Your task to perform on an android device: toggle improve location accuracy Image 0: 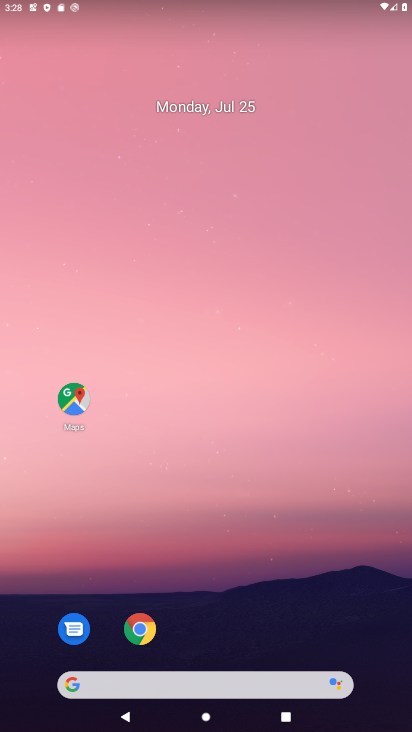
Step 0: drag from (213, 697) to (280, 103)
Your task to perform on an android device: toggle improve location accuracy Image 1: 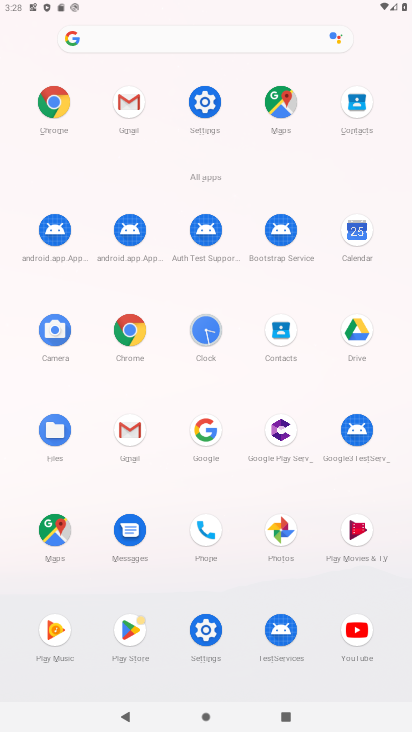
Step 1: click (214, 107)
Your task to perform on an android device: toggle improve location accuracy Image 2: 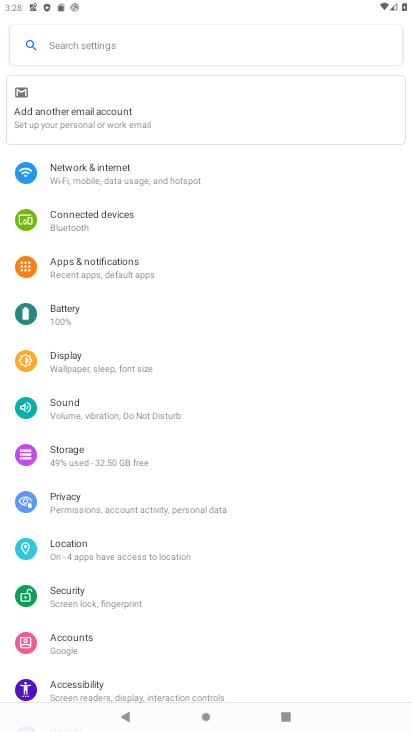
Step 2: click (106, 549)
Your task to perform on an android device: toggle improve location accuracy Image 3: 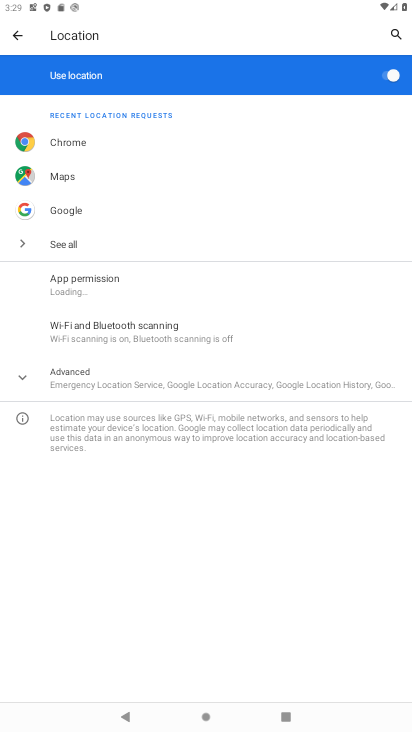
Step 3: click (160, 385)
Your task to perform on an android device: toggle improve location accuracy Image 4: 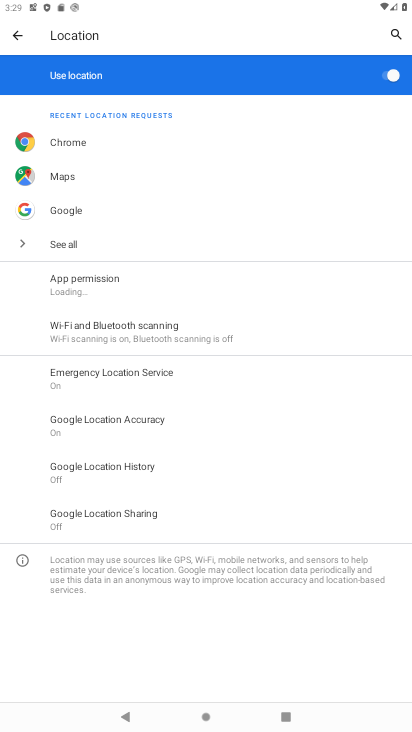
Step 4: click (151, 430)
Your task to perform on an android device: toggle improve location accuracy Image 5: 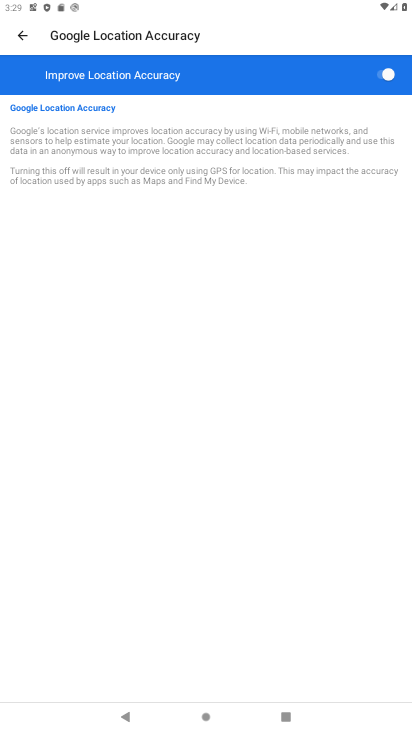
Step 5: click (379, 80)
Your task to perform on an android device: toggle improve location accuracy Image 6: 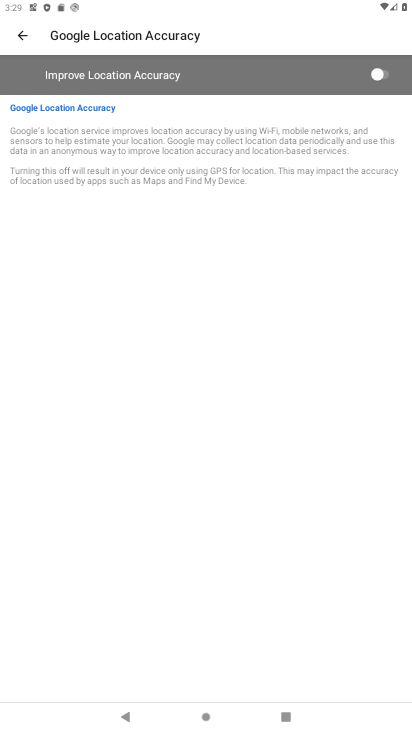
Step 6: task complete